Your task to perform on an android device: toggle wifi Image 0: 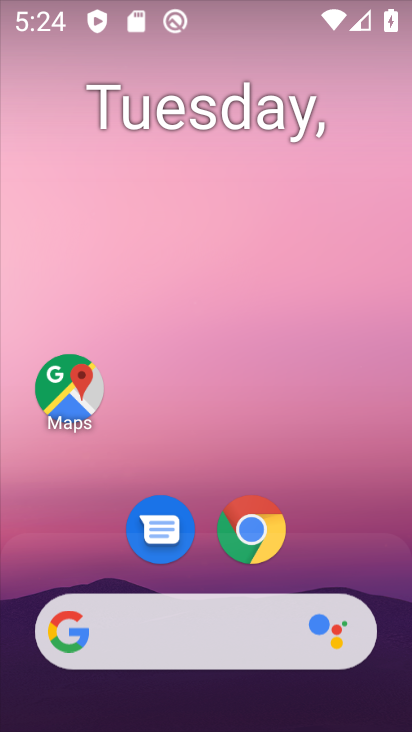
Step 0: click (391, 424)
Your task to perform on an android device: toggle wifi Image 1: 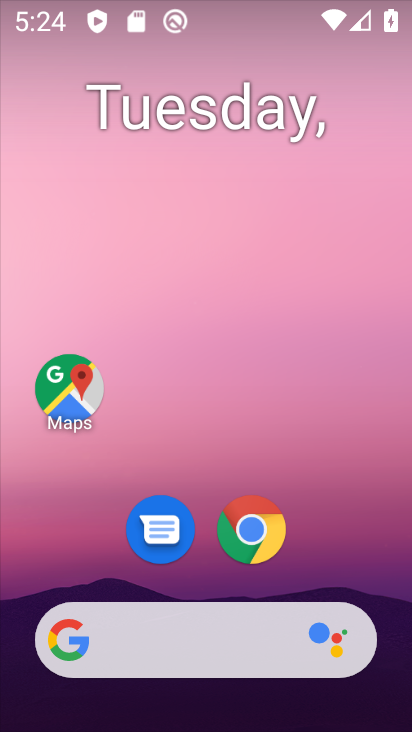
Step 1: click (373, 272)
Your task to perform on an android device: toggle wifi Image 2: 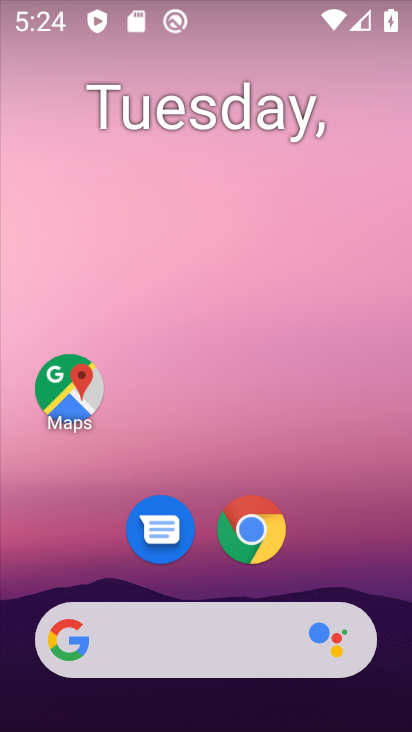
Step 2: drag from (399, 605) to (410, 276)
Your task to perform on an android device: toggle wifi Image 3: 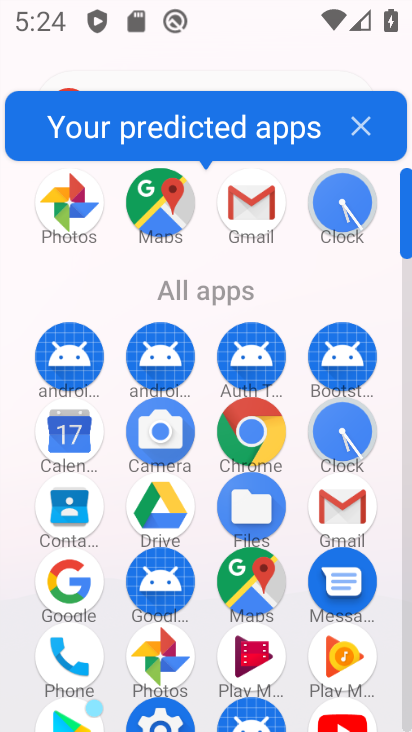
Step 3: click (355, 122)
Your task to perform on an android device: toggle wifi Image 4: 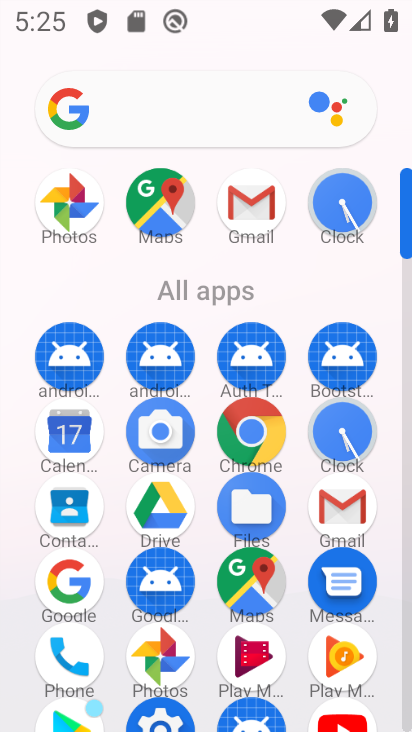
Step 4: click (156, 703)
Your task to perform on an android device: toggle wifi Image 5: 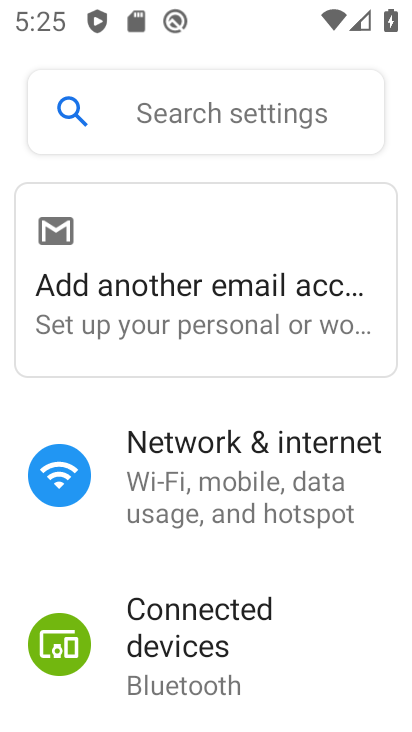
Step 5: click (238, 456)
Your task to perform on an android device: toggle wifi Image 6: 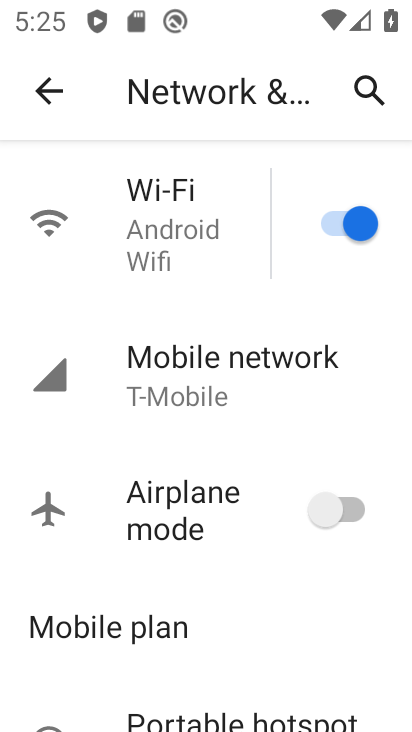
Step 6: drag from (2, 639) to (373, 707)
Your task to perform on an android device: toggle wifi Image 7: 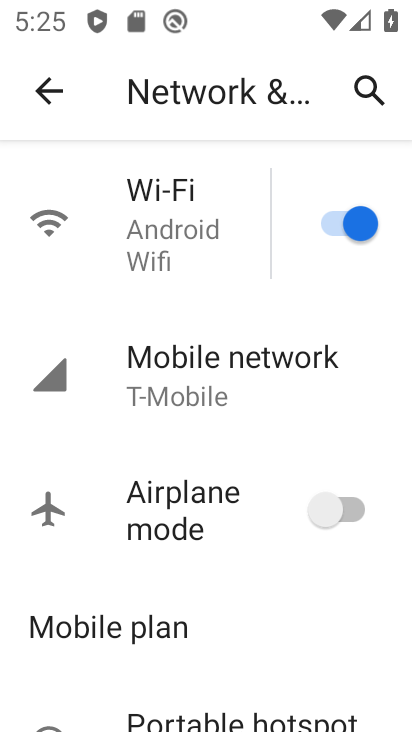
Step 7: click (334, 229)
Your task to perform on an android device: toggle wifi Image 8: 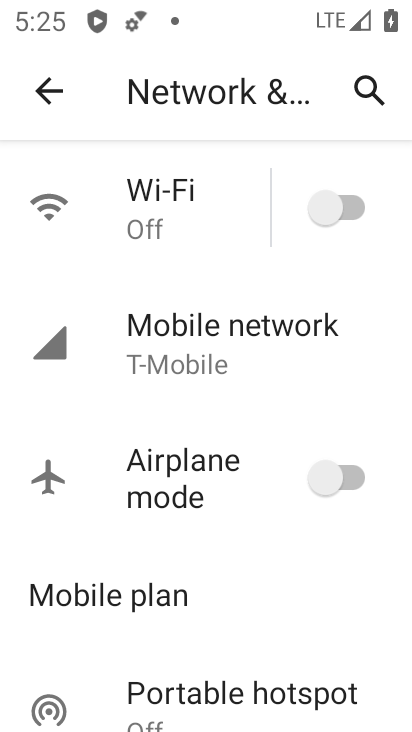
Step 8: task complete